Your task to perform on an android device: change your default location settings in chrome Image 0: 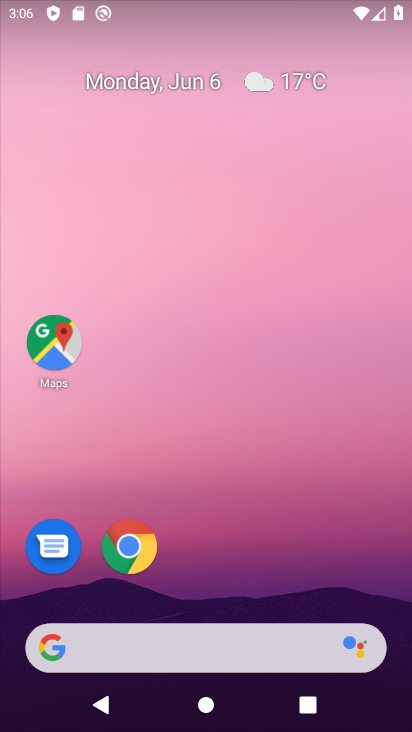
Step 0: drag from (304, 571) to (335, 1)
Your task to perform on an android device: change your default location settings in chrome Image 1: 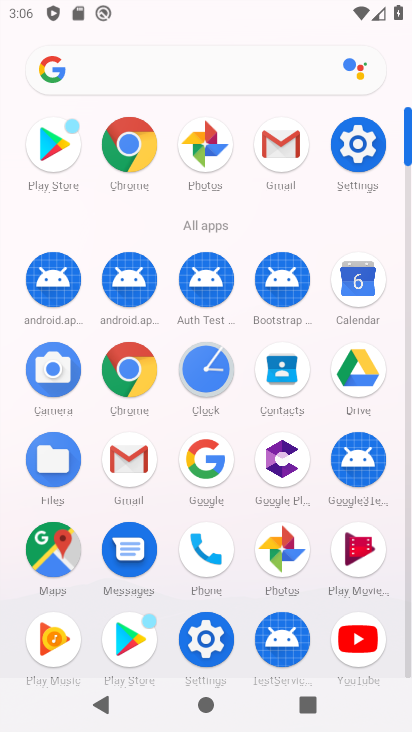
Step 1: click (126, 157)
Your task to perform on an android device: change your default location settings in chrome Image 2: 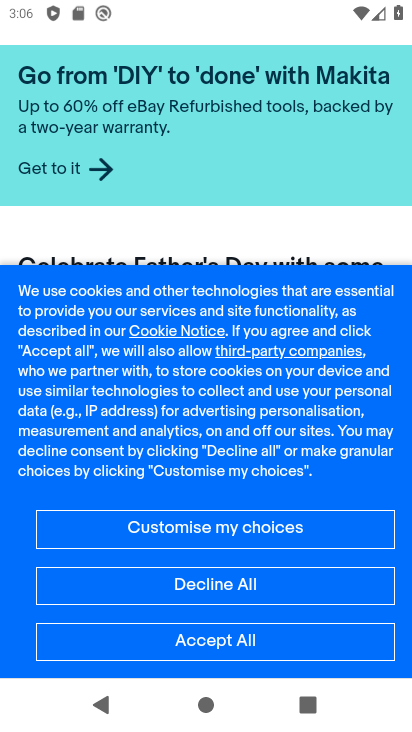
Step 2: drag from (246, 183) to (305, 723)
Your task to perform on an android device: change your default location settings in chrome Image 3: 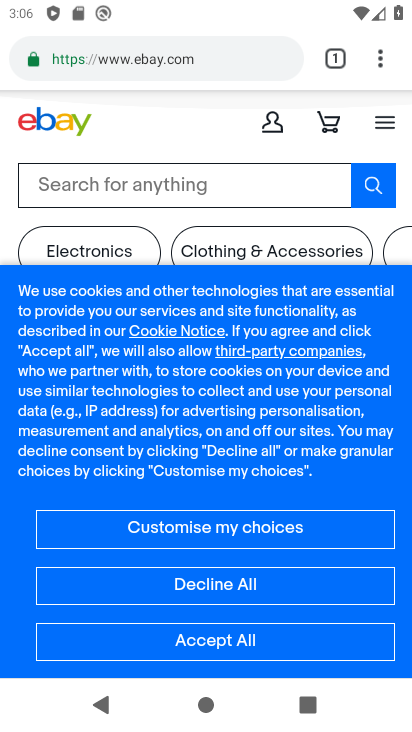
Step 3: drag from (250, 248) to (325, 647)
Your task to perform on an android device: change your default location settings in chrome Image 4: 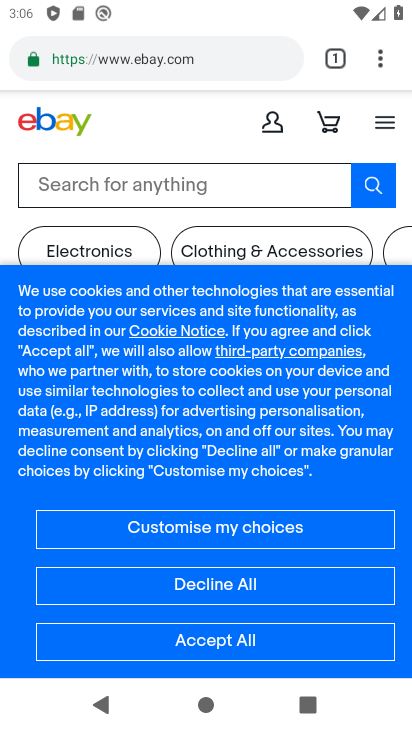
Step 4: drag from (377, 56) to (184, 562)
Your task to perform on an android device: change your default location settings in chrome Image 5: 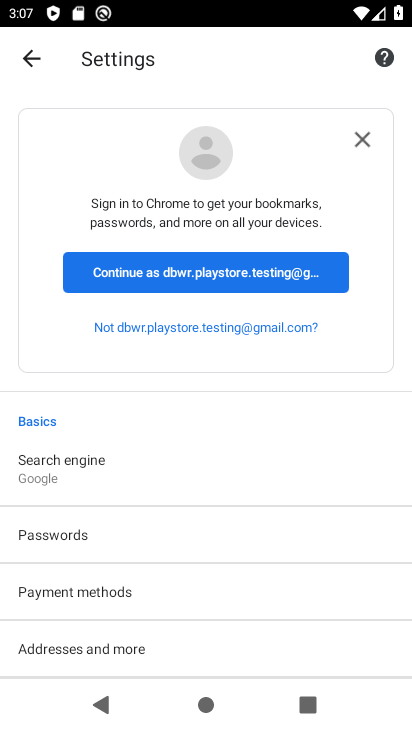
Step 5: drag from (167, 649) to (214, 244)
Your task to perform on an android device: change your default location settings in chrome Image 6: 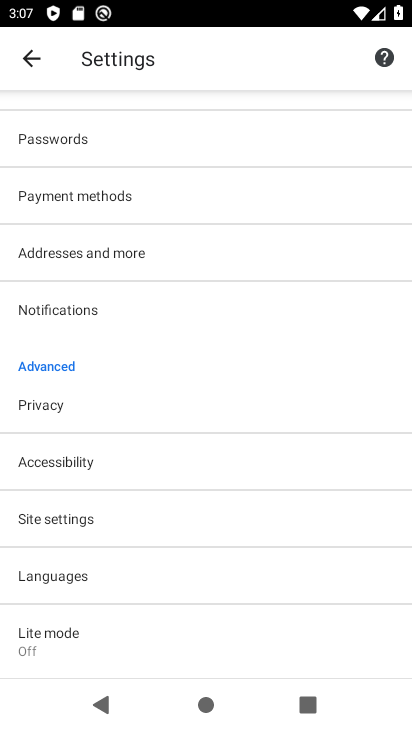
Step 6: drag from (206, 399) to (219, 615)
Your task to perform on an android device: change your default location settings in chrome Image 7: 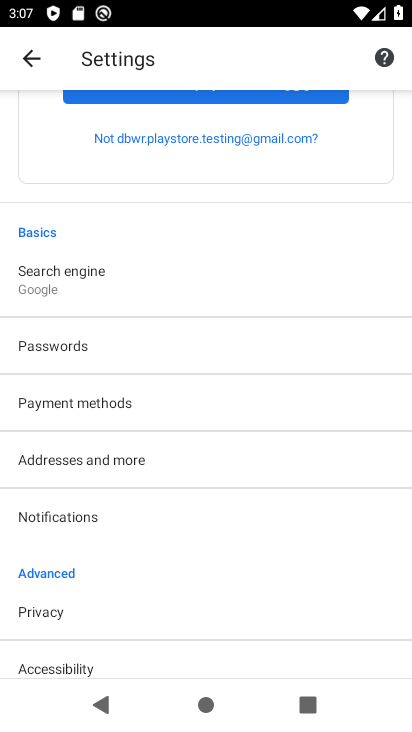
Step 7: click (118, 278)
Your task to perform on an android device: change your default location settings in chrome Image 8: 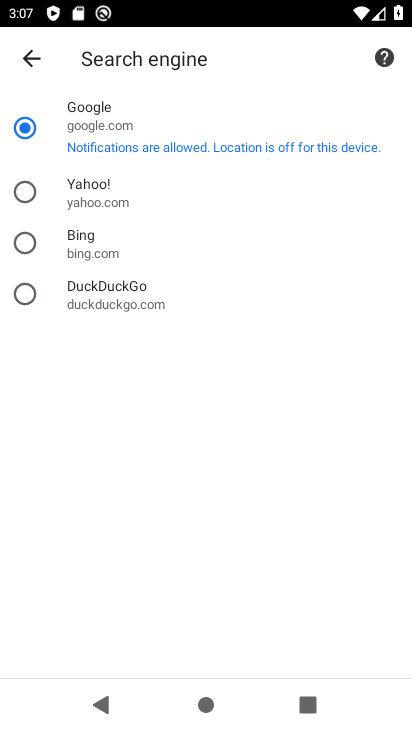
Step 8: task complete